Your task to perform on an android device: What's on my calendar tomorrow? Image 0: 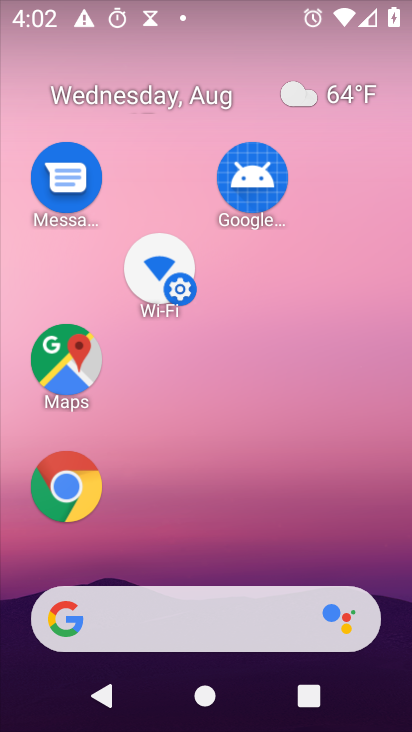
Step 0: drag from (279, 397) to (353, 0)
Your task to perform on an android device: What's on my calendar tomorrow? Image 1: 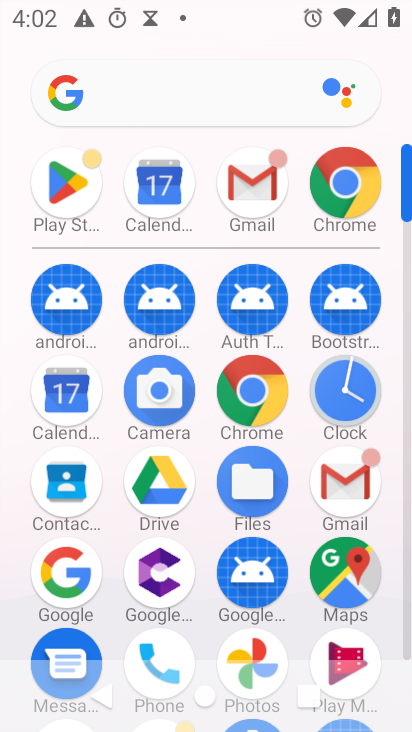
Step 1: click (62, 393)
Your task to perform on an android device: What's on my calendar tomorrow? Image 2: 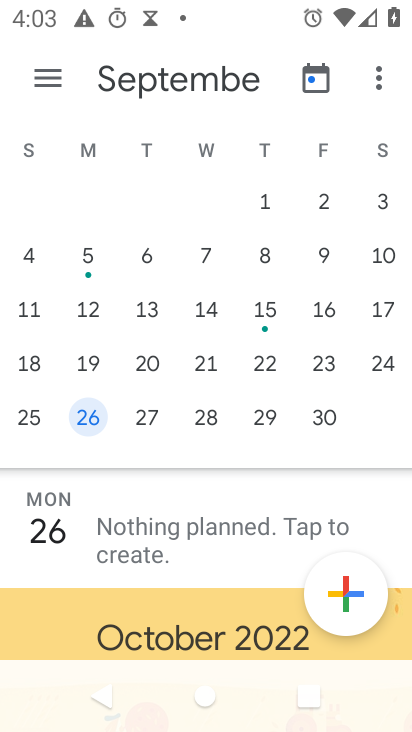
Step 2: drag from (174, 299) to (402, 322)
Your task to perform on an android device: What's on my calendar tomorrow? Image 3: 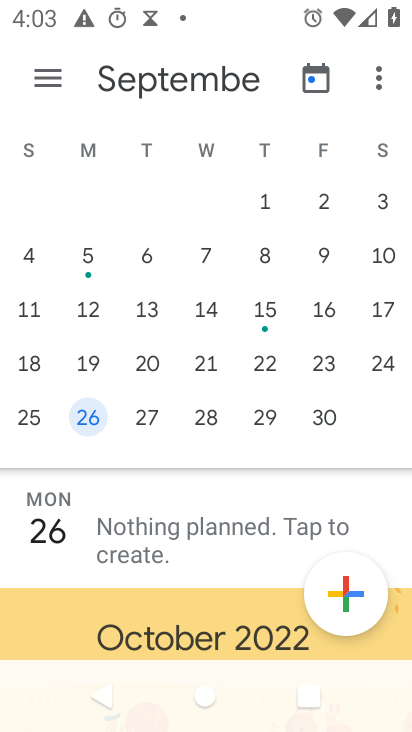
Step 3: drag from (35, 286) to (391, 350)
Your task to perform on an android device: What's on my calendar tomorrow? Image 4: 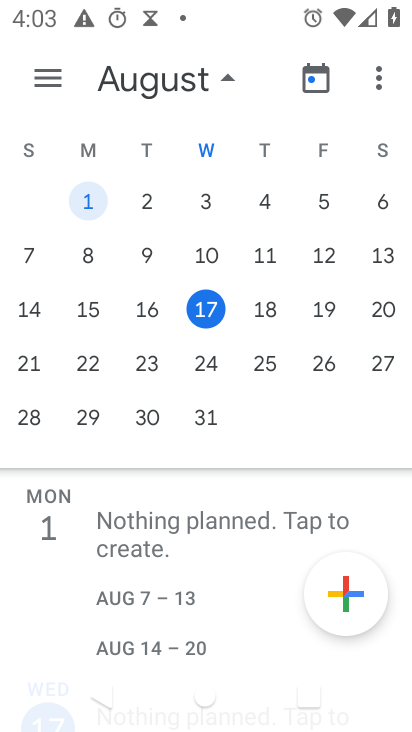
Step 4: click (265, 311)
Your task to perform on an android device: What's on my calendar tomorrow? Image 5: 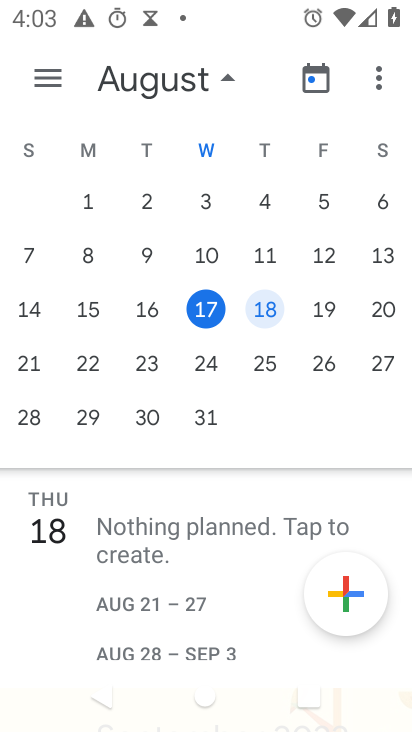
Step 5: task complete